Your task to perform on an android device: change text size in settings app Image 0: 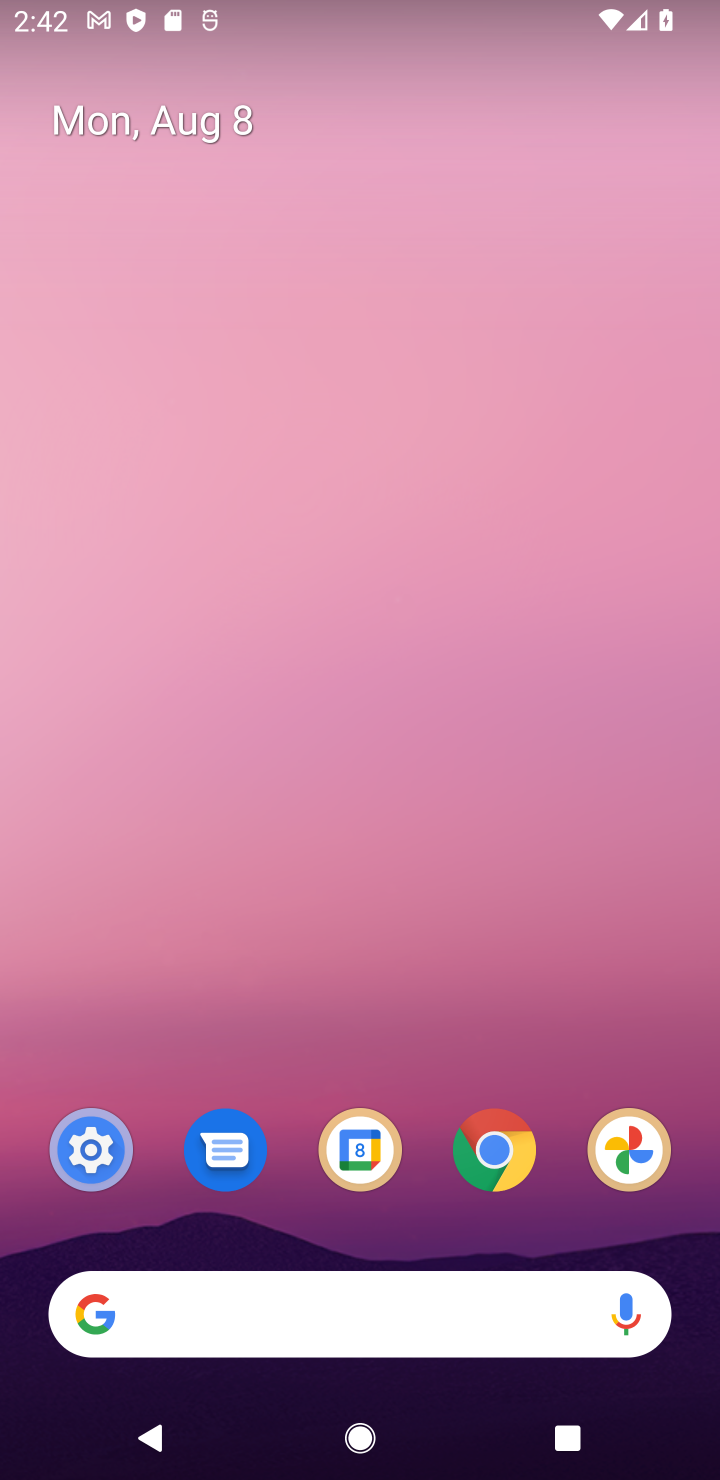
Step 0: click (95, 1187)
Your task to perform on an android device: change text size in settings app Image 1: 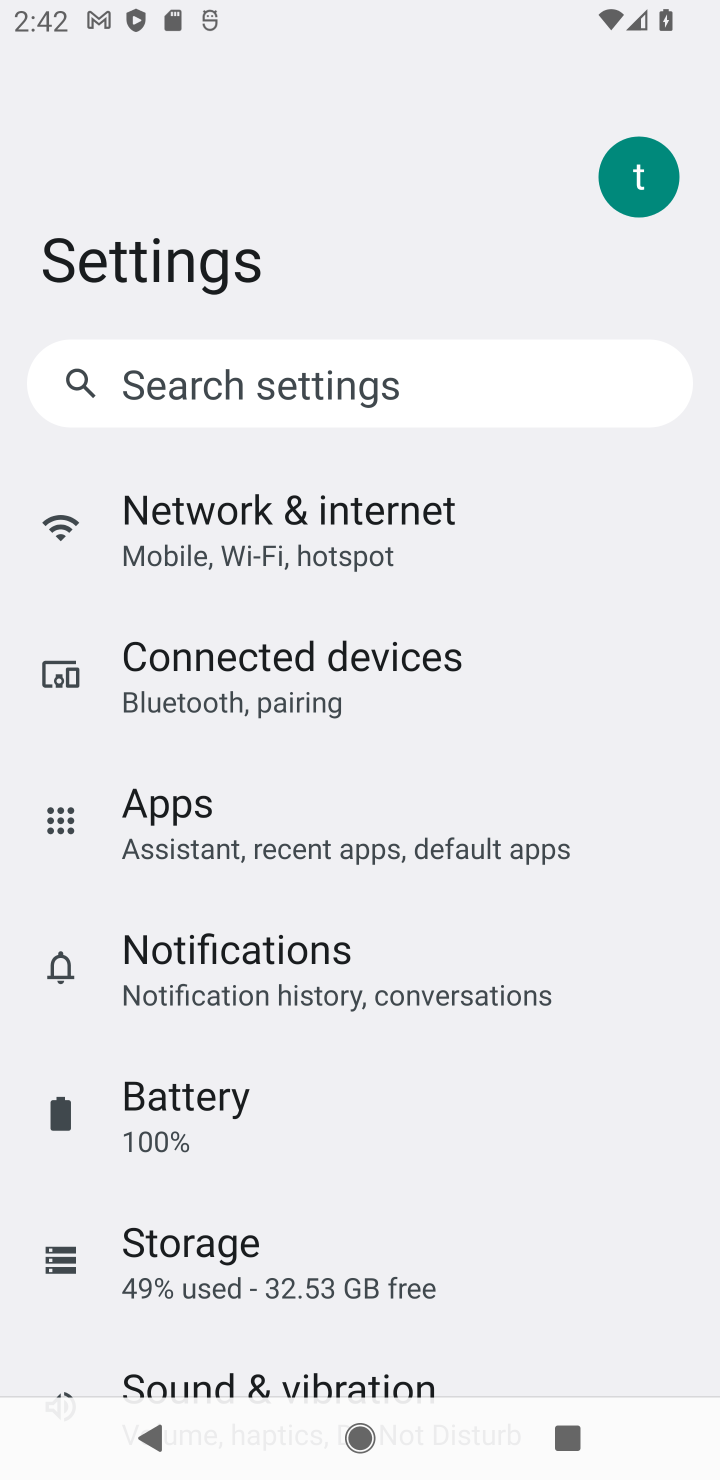
Step 1: drag from (237, 1343) to (399, 417)
Your task to perform on an android device: change text size in settings app Image 2: 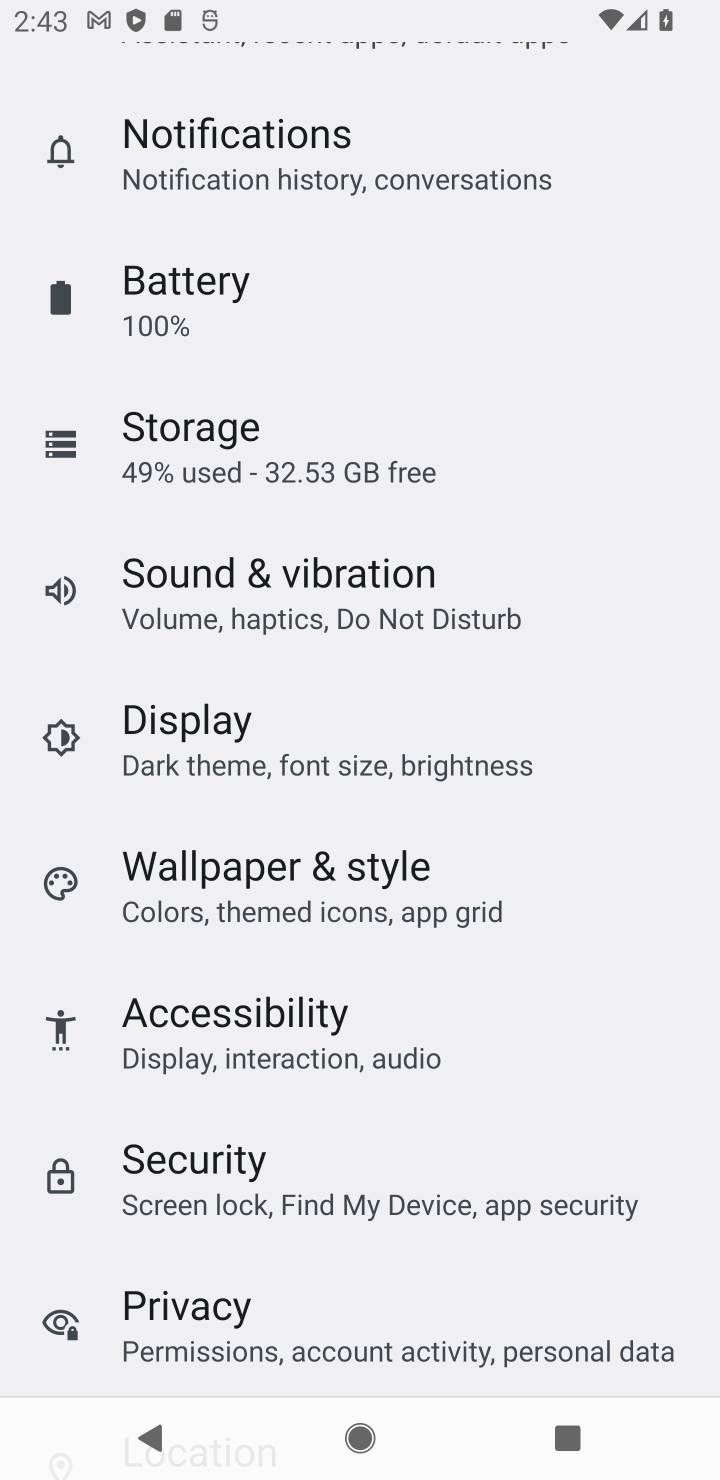
Step 2: drag from (577, 1253) to (599, 247)
Your task to perform on an android device: change text size in settings app Image 3: 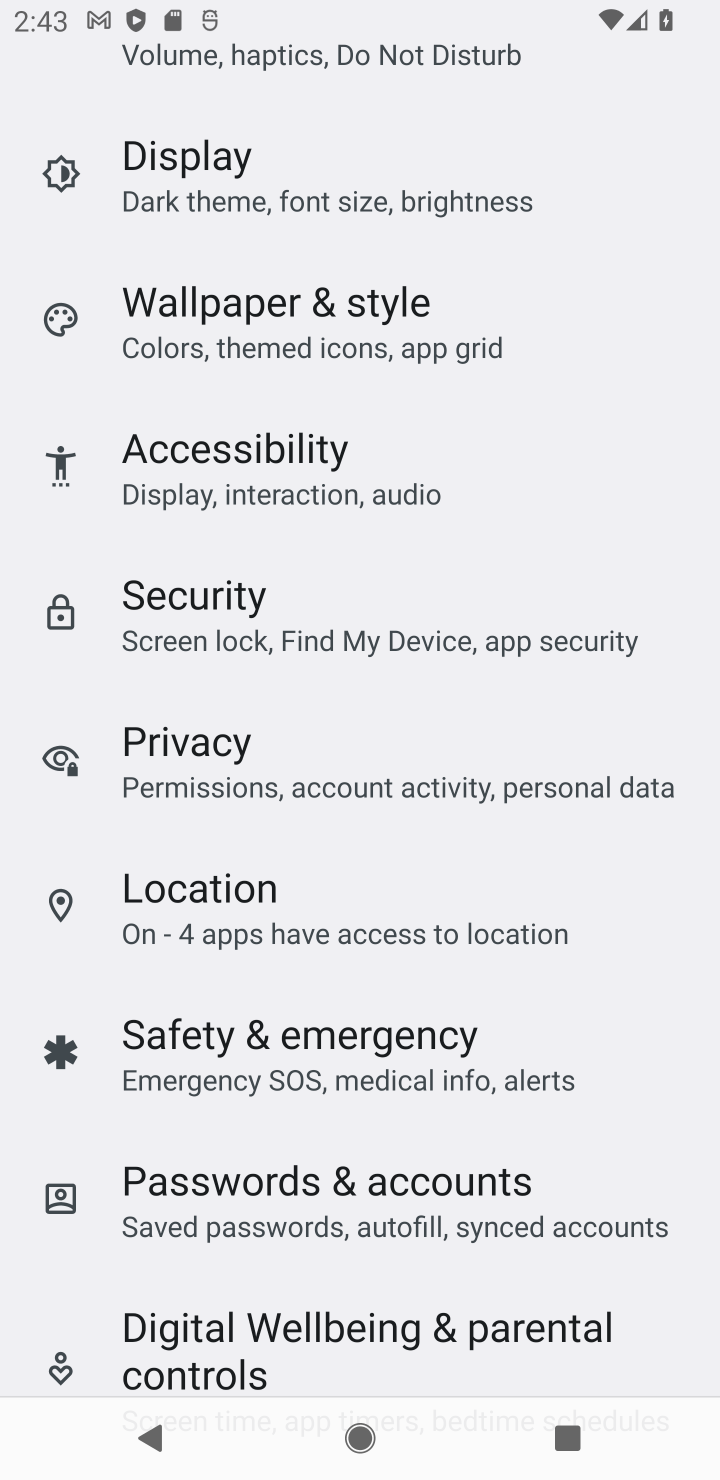
Step 3: drag from (569, 1317) to (586, 487)
Your task to perform on an android device: change text size in settings app Image 4: 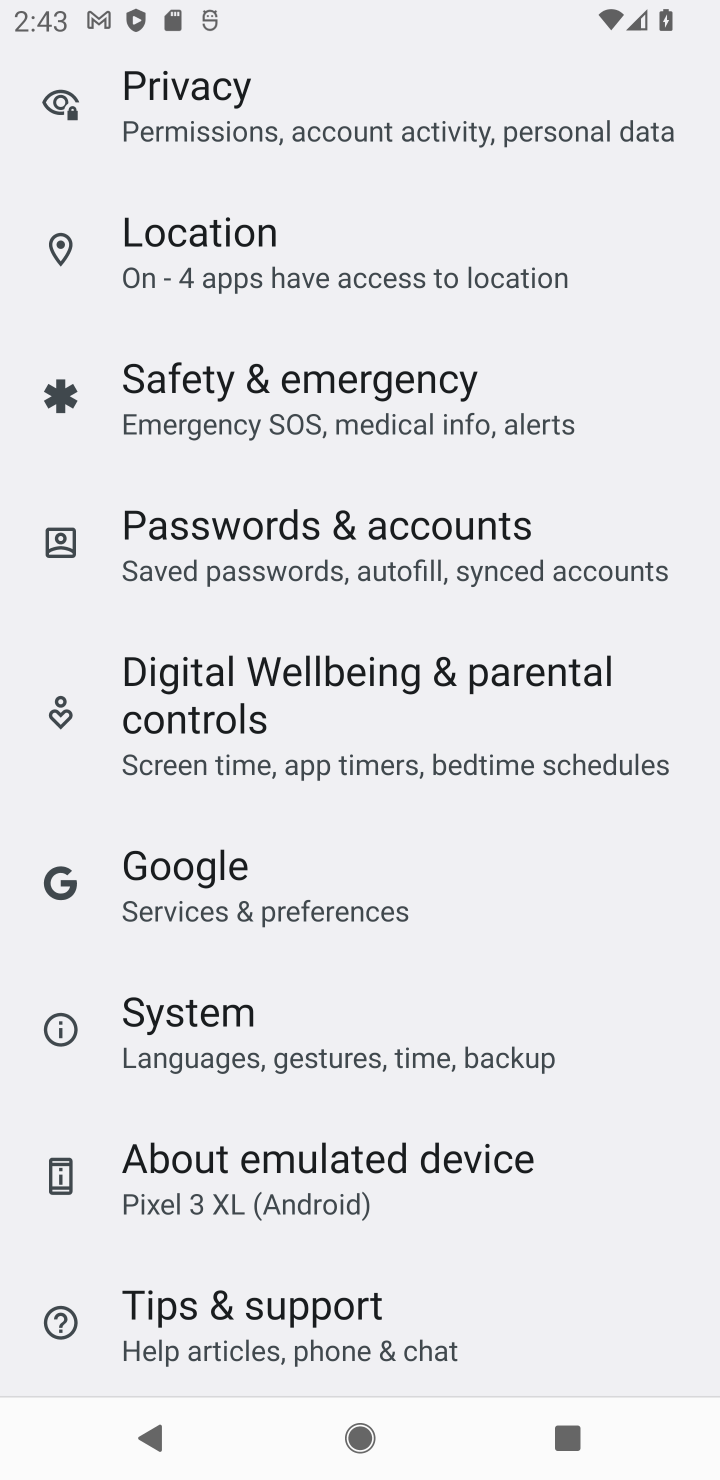
Step 4: drag from (511, 1364) to (546, 529)
Your task to perform on an android device: change text size in settings app Image 5: 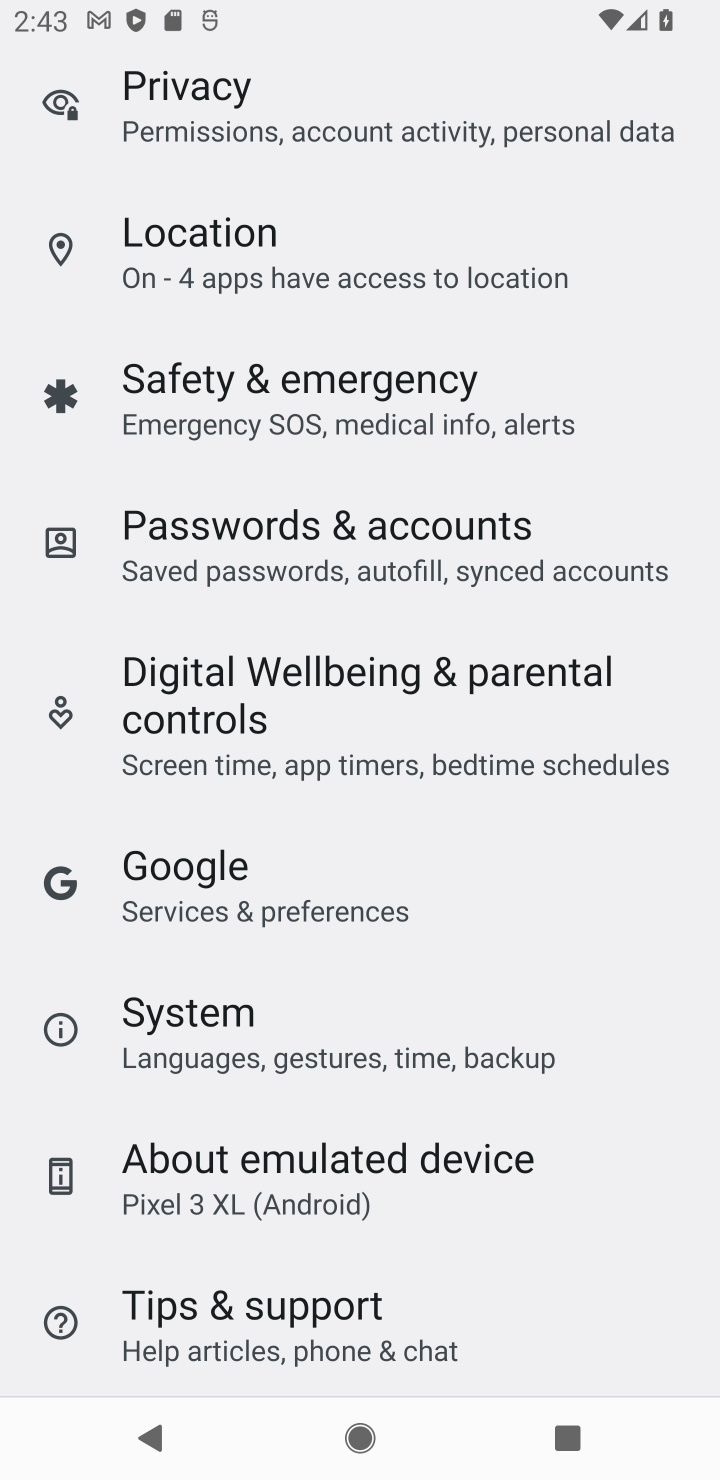
Step 5: click (366, 1131)
Your task to perform on an android device: change text size in settings app Image 6: 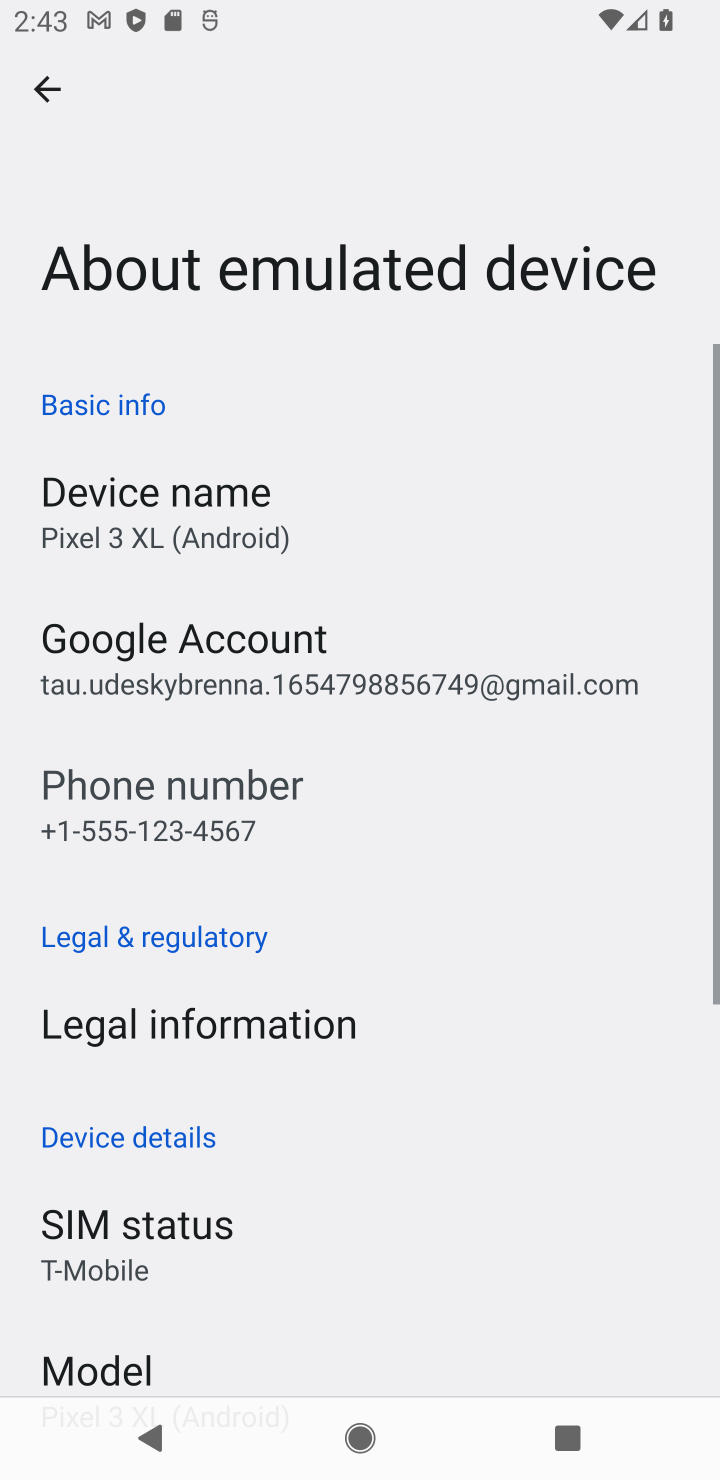
Step 6: task complete